Your task to perform on an android device: Open Chrome and go to settings Image 0: 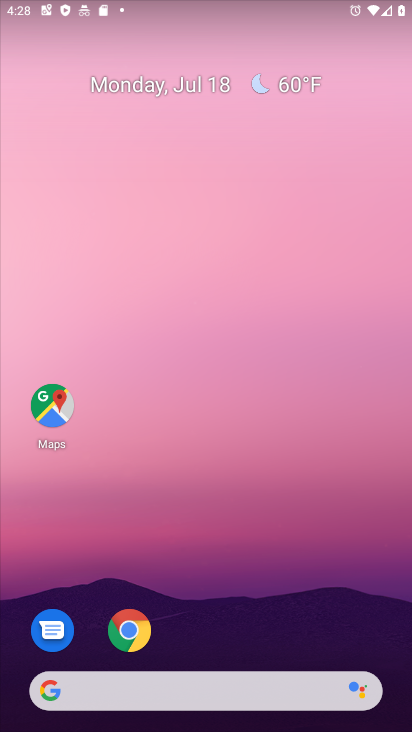
Step 0: drag from (300, 665) to (207, 143)
Your task to perform on an android device: Open Chrome and go to settings Image 1: 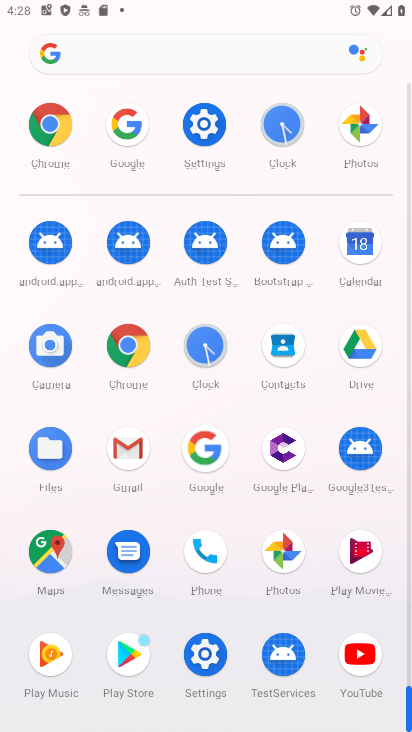
Step 1: click (51, 123)
Your task to perform on an android device: Open Chrome and go to settings Image 2: 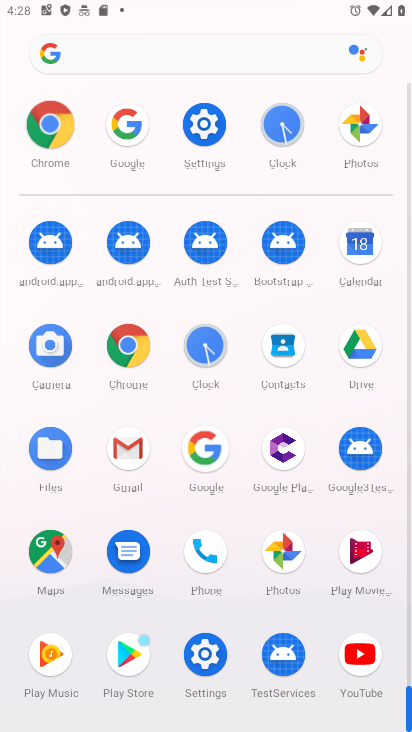
Step 2: click (55, 114)
Your task to perform on an android device: Open Chrome and go to settings Image 3: 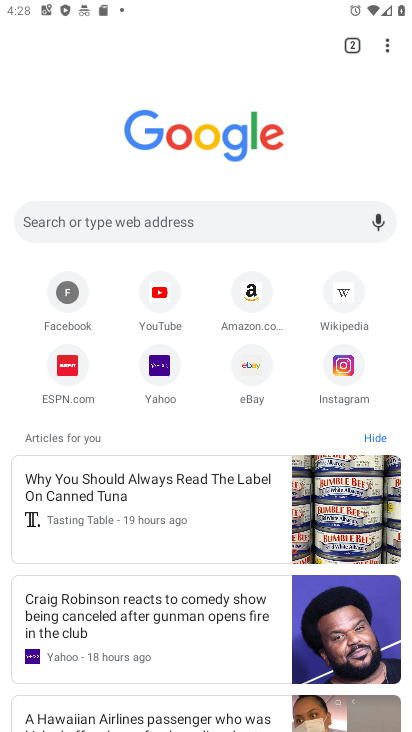
Step 3: drag from (387, 40) to (222, 381)
Your task to perform on an android device: Open Chrome and go to settings Image 4: 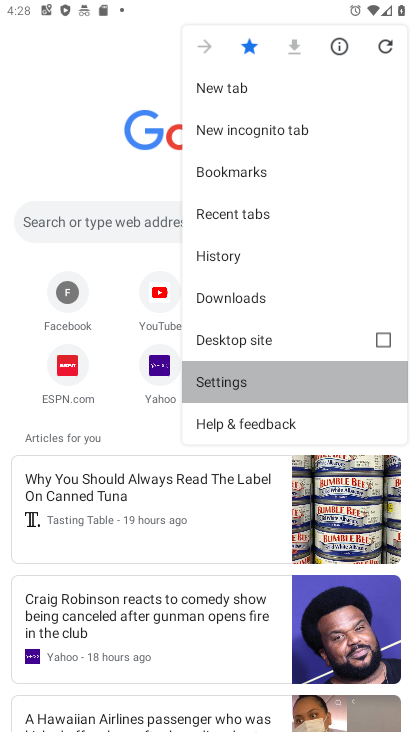
Step 4: click (218, 381)
Your task to perform on an android device: Open Chrome and go to settings Image 5: 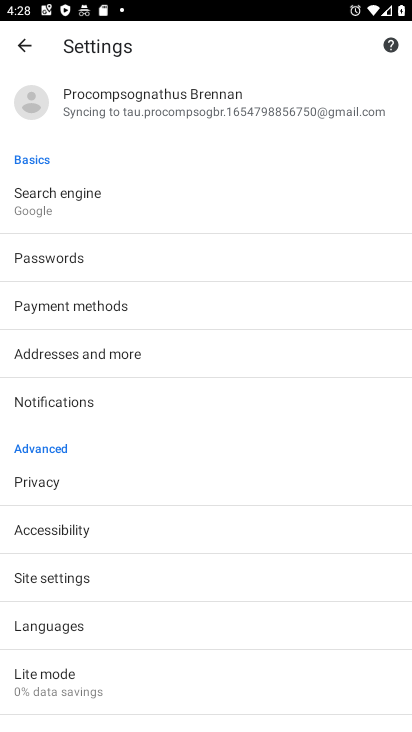
Step 5: task complete